Your task to perform on an android device: empty trash in google photos Image 0: 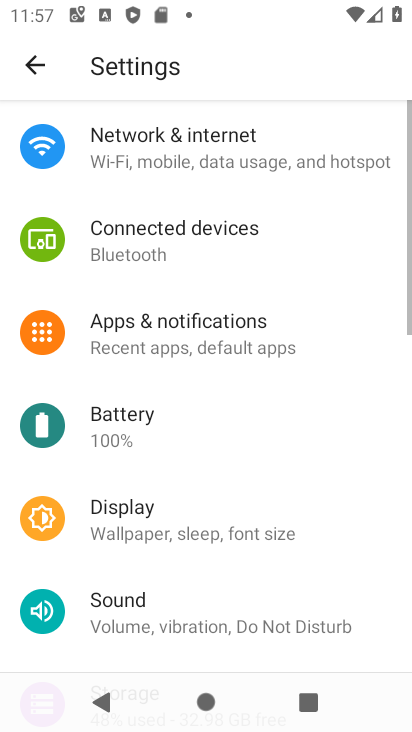
Step 0: press home button
Your task to perform on an android device: empty trash in google photos Image 1: 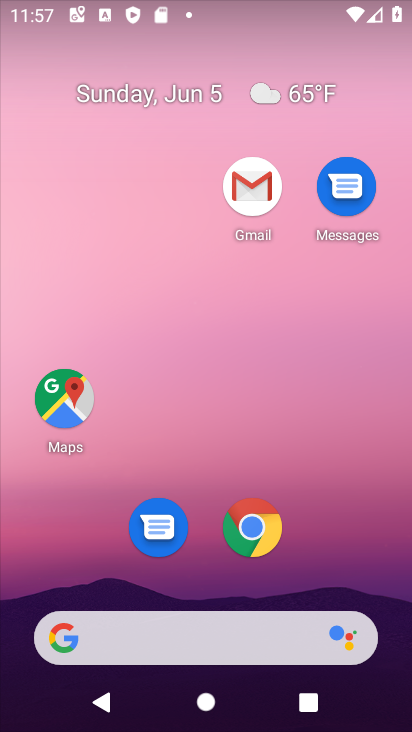
Step 1: drag from (288, 558) to (280, 31)
Your task to perform on an android device: empty trash in google photos Image 2: 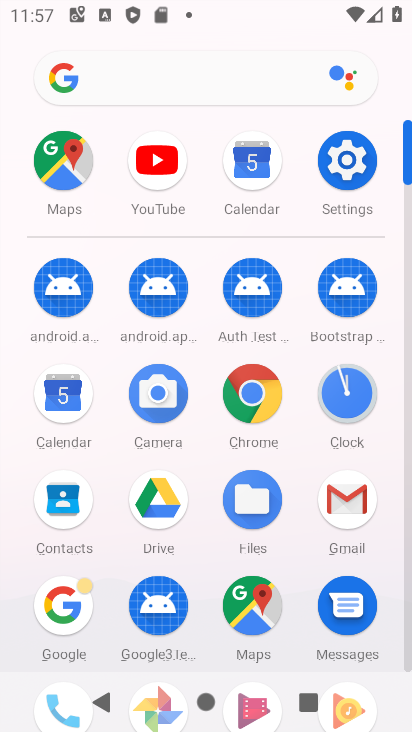
Step 2: drag from (197, 648) to (183, 282)
Your task to perform on an android device: empty trash in google photos Image 3: 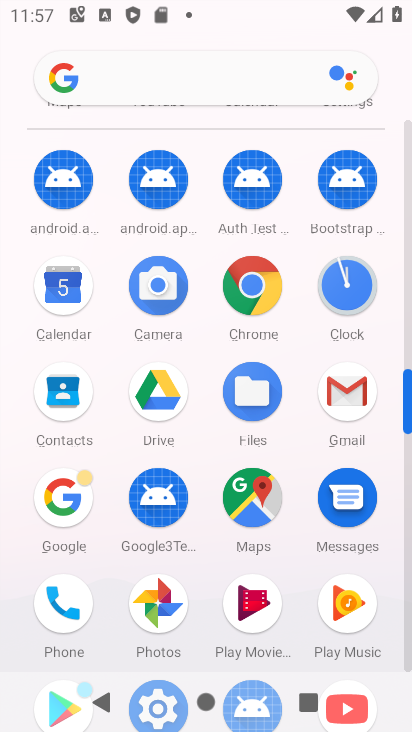
Step 3: click (165, 597)
Your task to perform on an android device: empty trash in google photos Image 4: 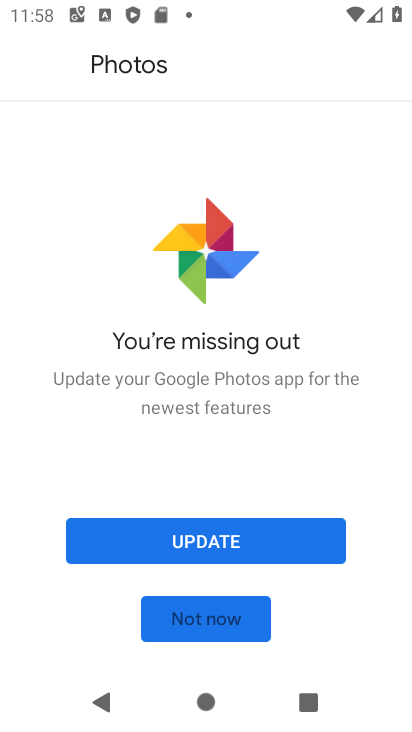
Step 4: click (228, 535)
Your task to perform on an android device: empty trash in google photos Image 5: 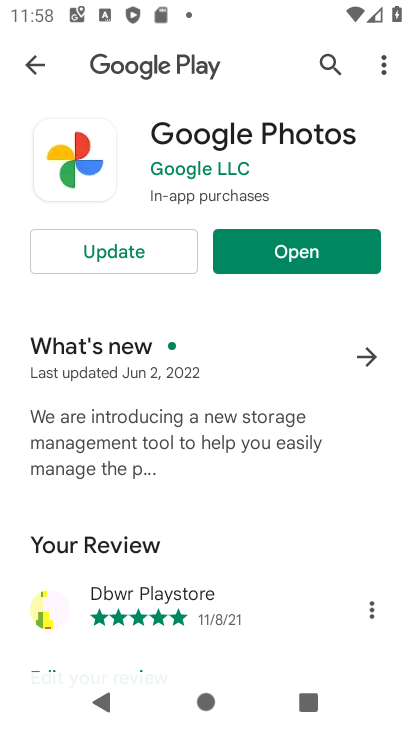
Step 5: click (143, 254)
Your task to perform on an android device: empty trash in google photos Image 6: 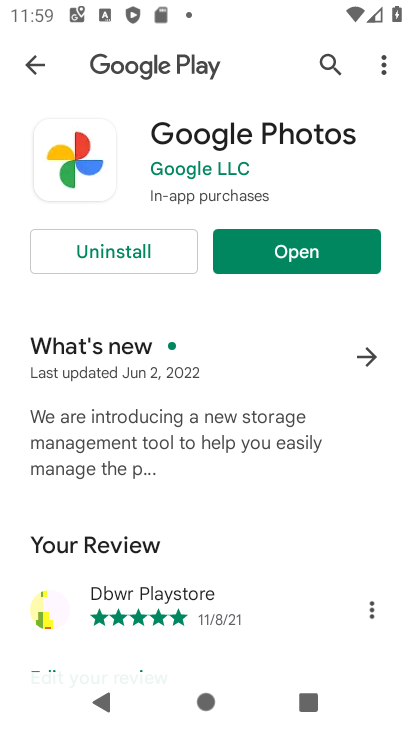
Step 6: click (323, 238)
Your task to perform on an android device: empty trash in google photos Image 7: 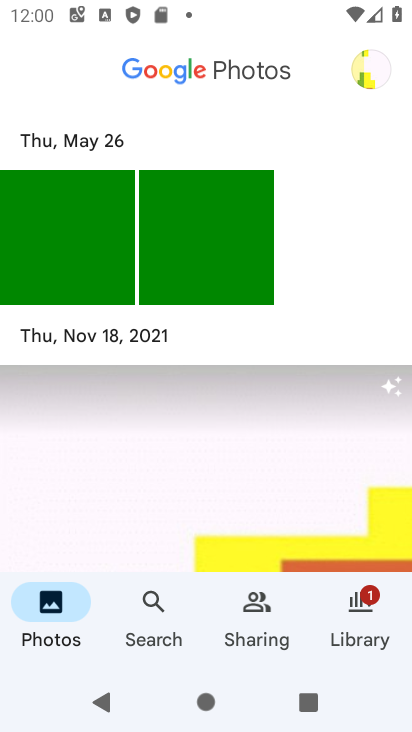
Step 7: click (364, 603)
Your task to perform on an android device: empty trash in google photos Image 8: 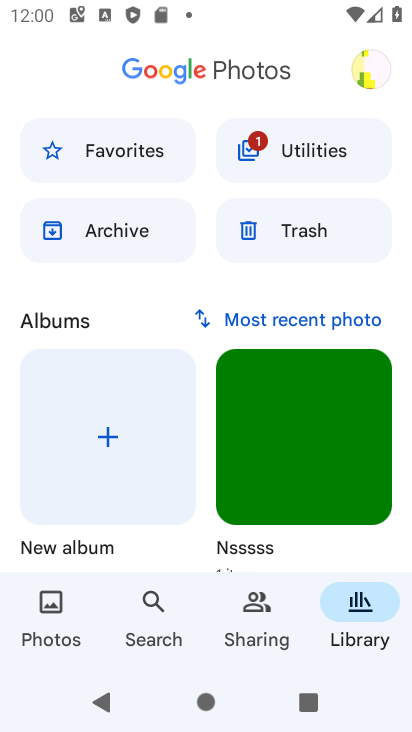
Step 8: click (308, 240)
Your task to perform on an android device: empty trash in google photos Image 9: 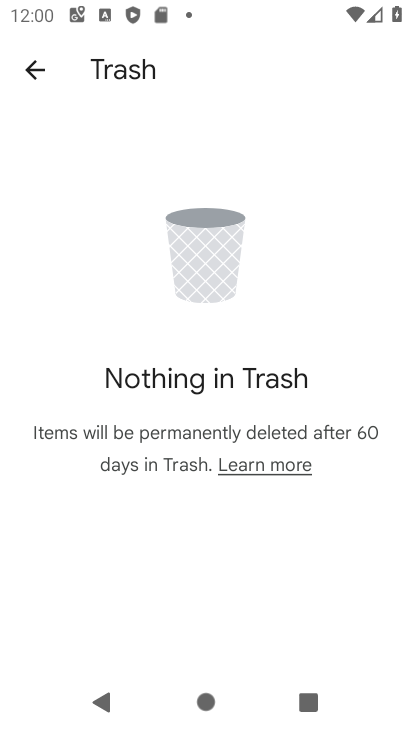
Step 9: task complete